Your task to perform on an android device: Go to CNN.com Image 0: 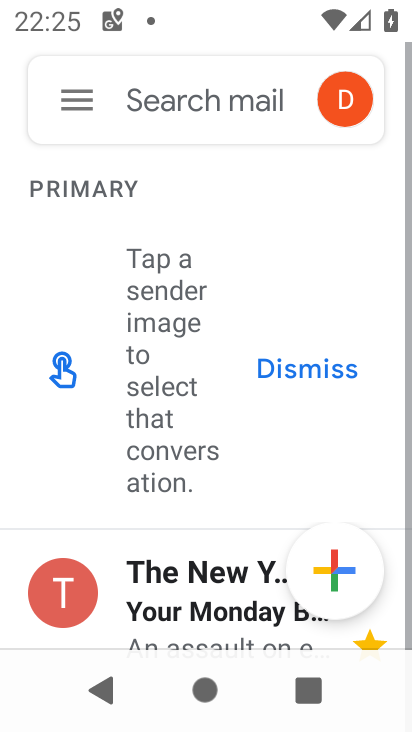
Step 0: press home button
Your task to perform on an android device: Go to CNN.com Image 1: 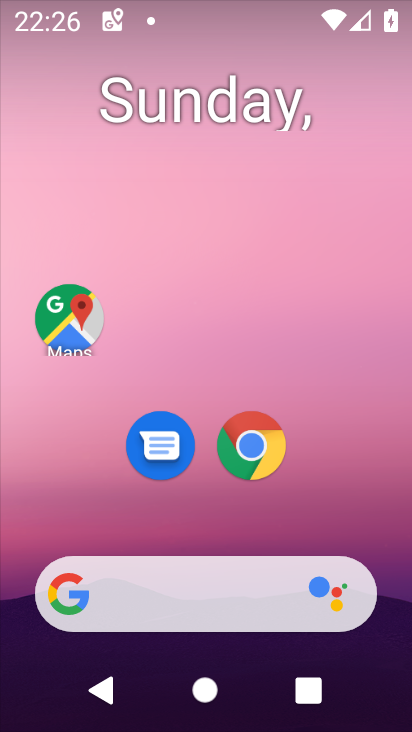
Step 1: drag from (327, 498) to (200, 143)
Your task to perform on an android device: Go to CNN.com Image 2: 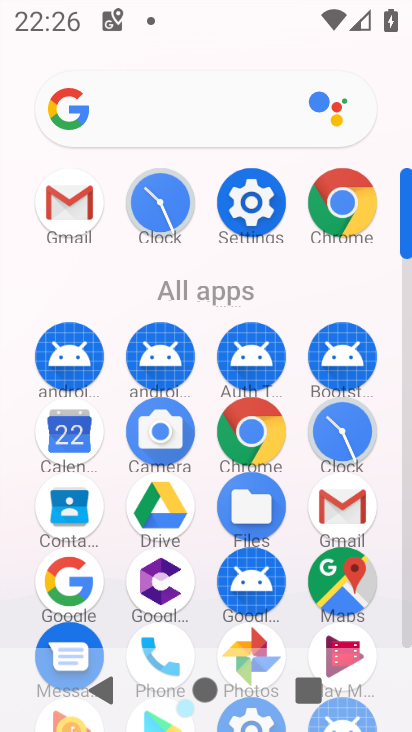
Step 2: click (409, 537)
Your task to perform on an android device: Go to CNN.com Image 3: 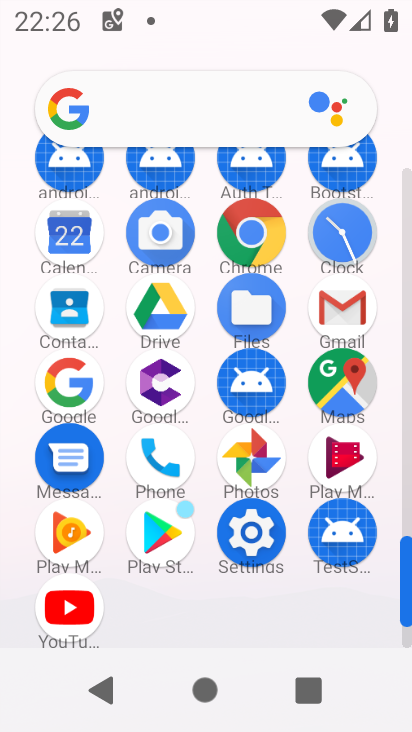
Step 3: click (242, 234)
Your task to perform on an android device: Go to CNN.com Image 4: 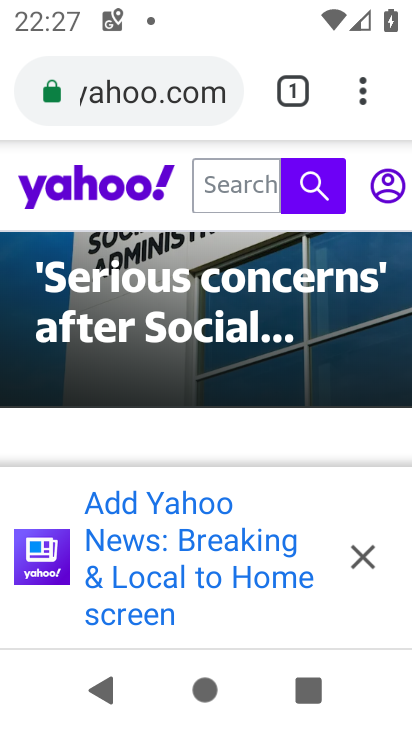
Step 4: click (200, 108)
Your task to perform on an android device: Go to CNN.com Image 5: 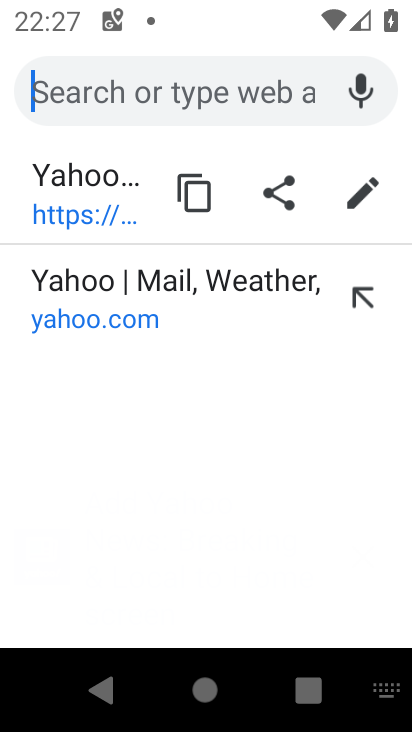
Step 5: type " CNN.com"
Your task to perform on an android device: Go to CNN.com Image 6: 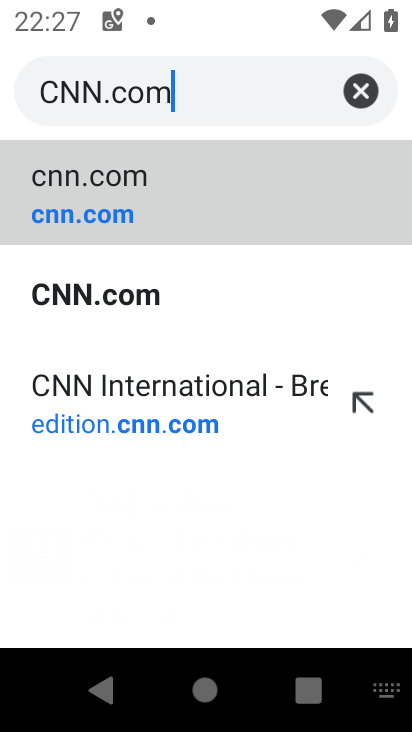
Step 6: type ""
Your task to perform on an android device: Go to CNN.com Image 7: 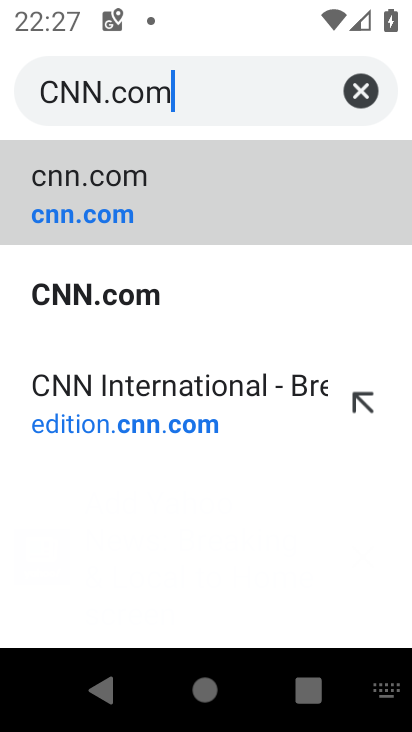
Step 7: click (143, 181)
Your task to perform on an android device: Go to CNN.com Image 8: 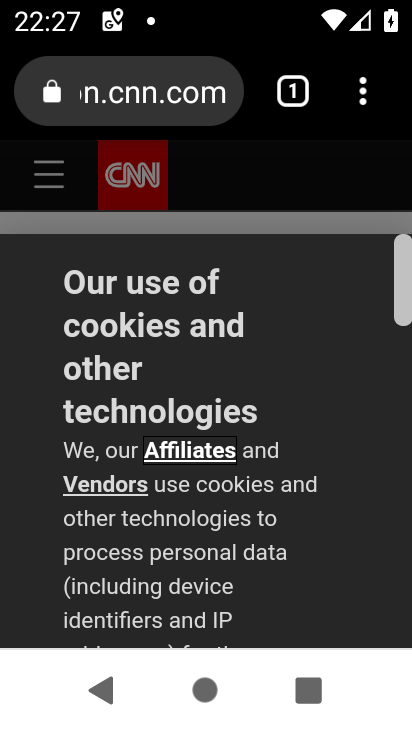
Step 8: task complete